Your task to perform on an android device: Go to battery settings Image 0: 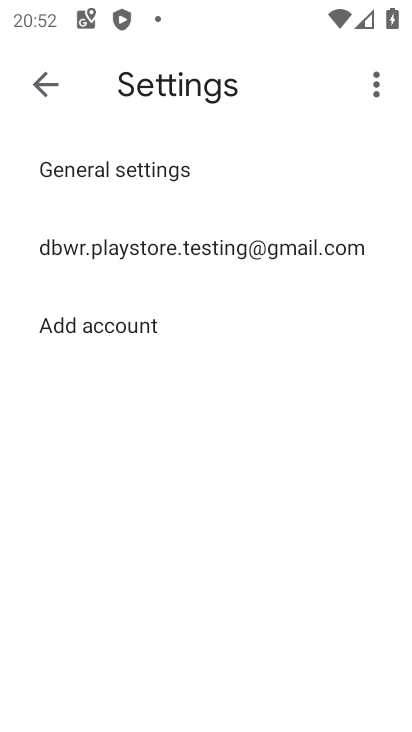
Step 0: press home button
Your task to perform on an android device: Go to battery settings Image 1: 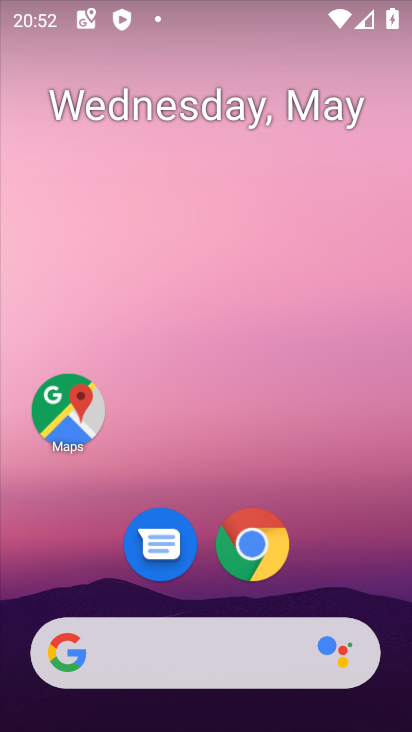
Step 1: drag from (190, 595) to (190, 188)
Your task to perform on an android device: Go to battery settings Image 2: 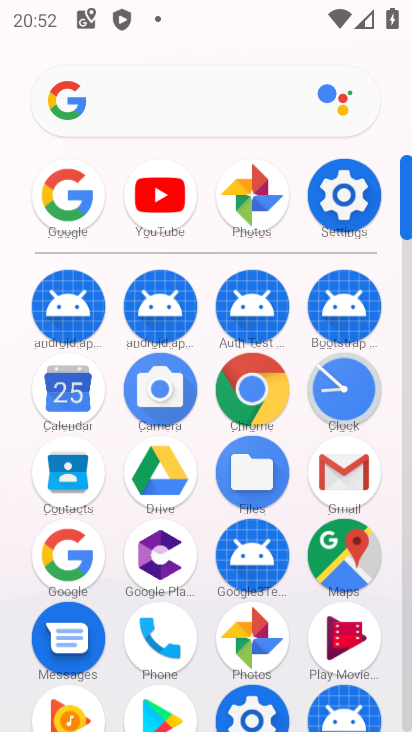
Step 2: click (367, 218)
Your task to perform on an android device: Go to battery settings Image 3: 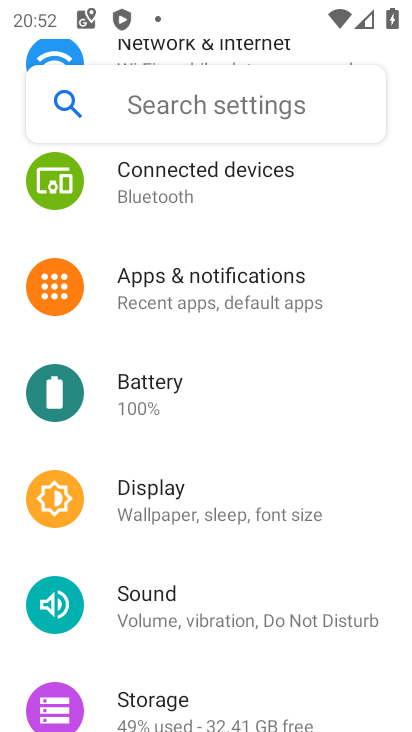
Step 3: click (150, 385)
Your task to perform on an android device: Go to battery settings Image 4: 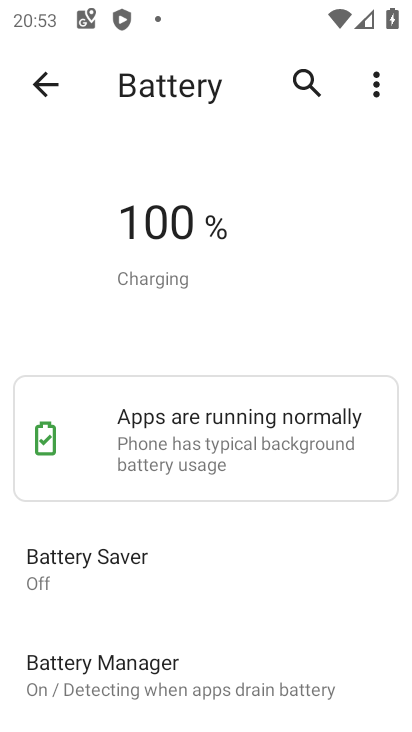
Step 4: task complete